Your task to perform on an android device: Open Google Image 0: 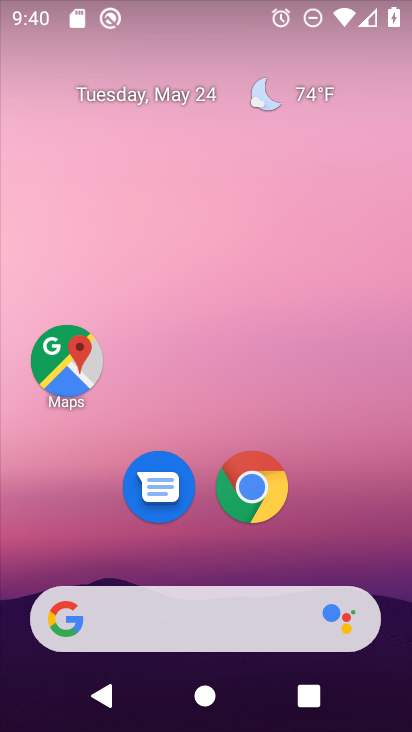
Step 0: drag from (317, 568) to (313, 10)
Your task to perform on an android device: Open Google Image 1: 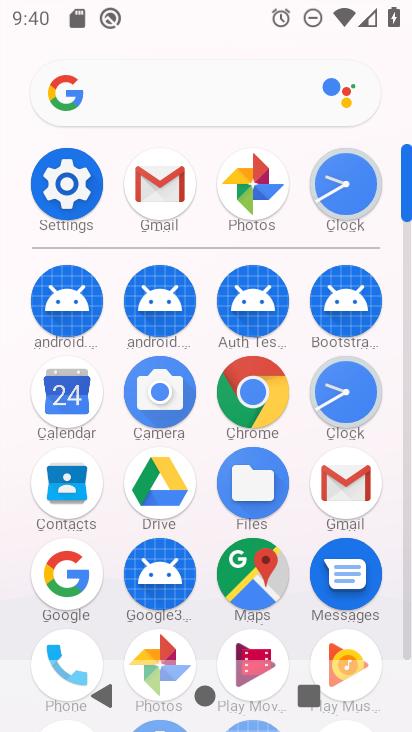
Step 1: click (66, 584)
Your task to perform on an android device: Open Google Image 2: 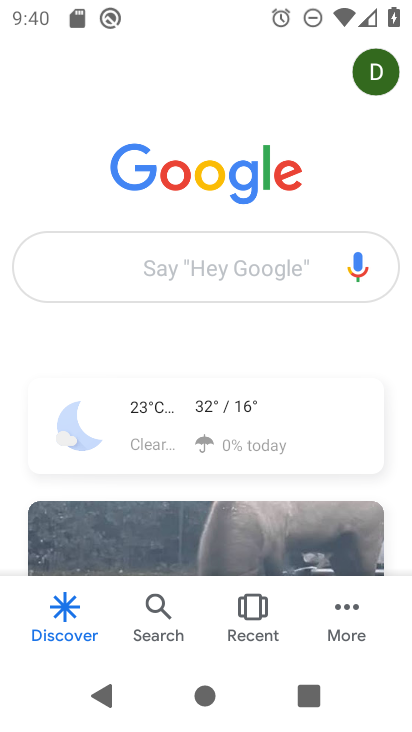
Step 2: task complete